Your task to perform on an android device: Open wifi settings Image 0: 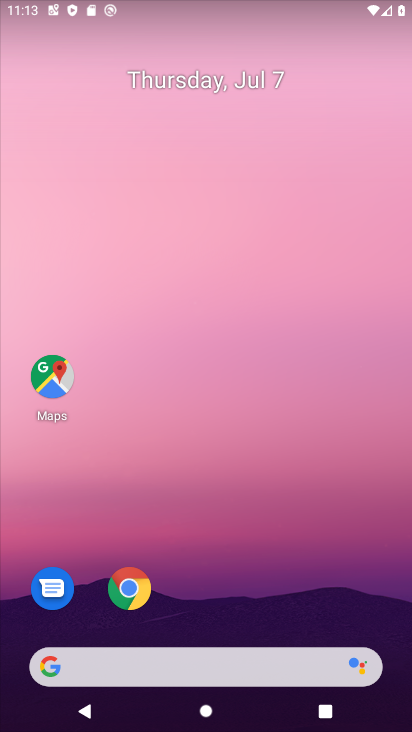
Step 0: drag from (224, 535) to (113, 69)
Your task to perform on an android device: Open wifi settings Image 1: 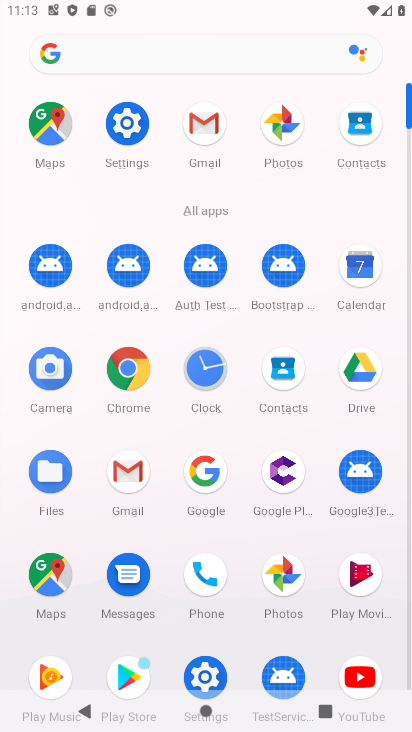
Step 1: click (126, 125)
Your task to perform on an android device: Open wifi settings Image 2: 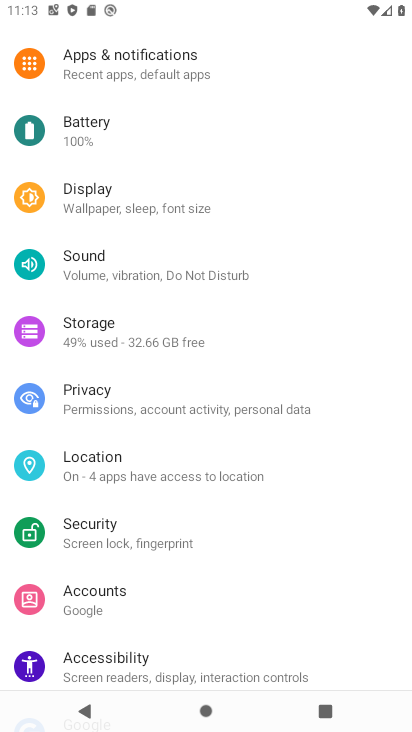
Step 2: drag from (176, 113) to (190, 380)
Your task to perform on an android device: Open wifi settings Image 3: 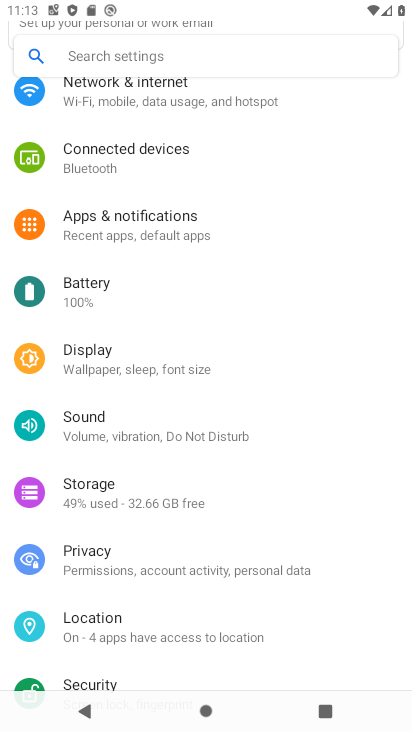
Step 3: click (130, 90)
Your task to perform on an android device: Open wifi settings Image 4: 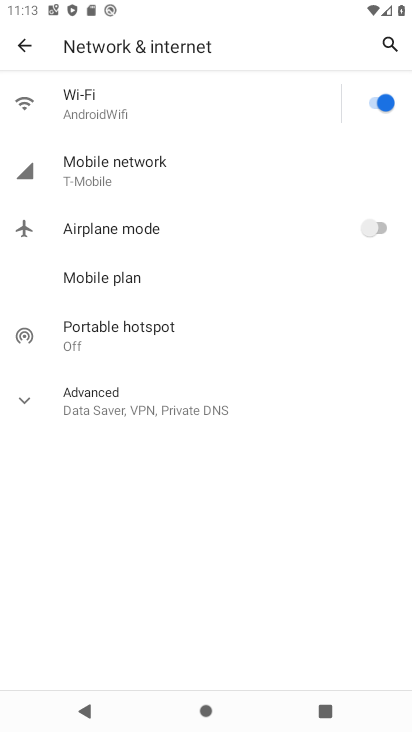
Step 4: click (143, 98)
Your task to perform on an android device: Open wifi settings Image 5: 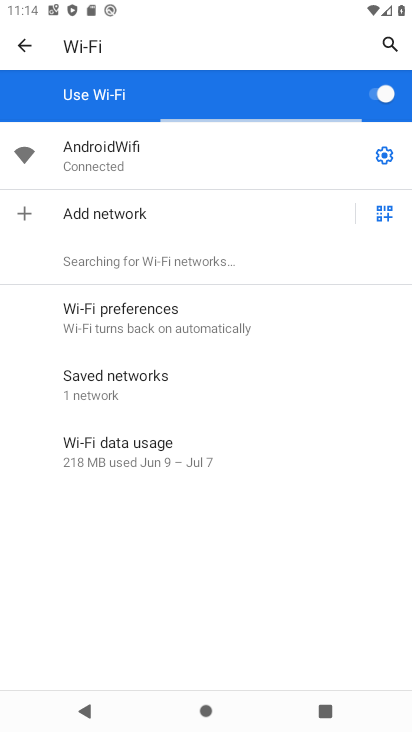
Step 5: task complete